Your task to perform on an android device: Open CNN.com Image 0: 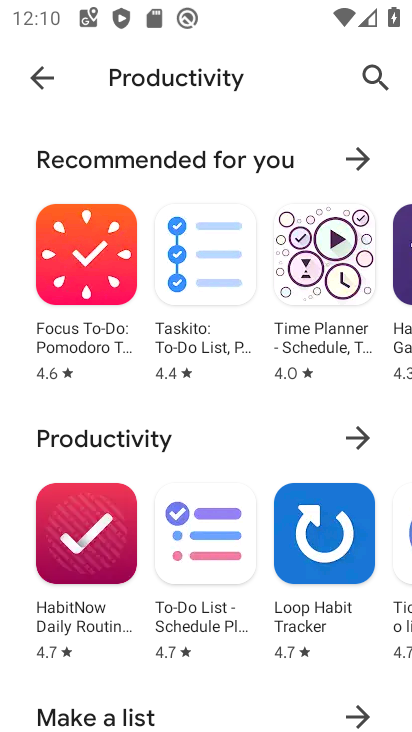
Step 0: press home button
Your task to perform on an android device: Open CNN.com Image 1: 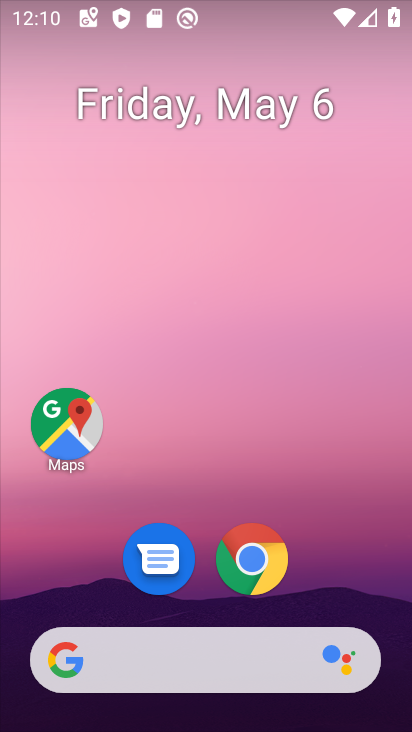
Step 1: click (227, 558)
Your task to perform on an android device: Open CNN.com Image 2: 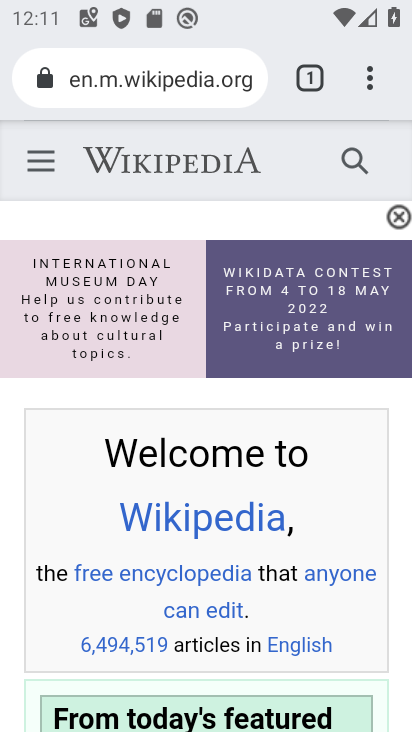
Step 2: click (180, 85)
Your task to perform on an android device: Open CNN.com Image 3: 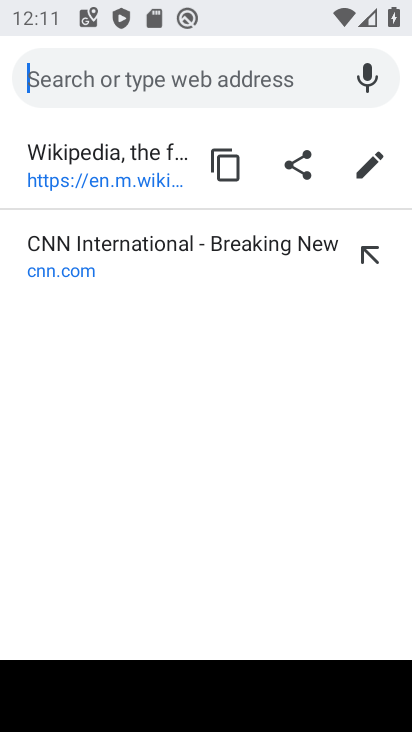
Step 3: type "CNN.com"
Your task to perform on an android device: Open CNN.com Image 4: 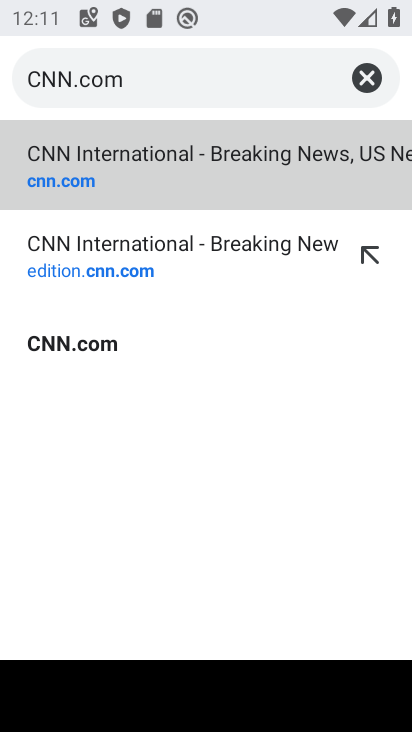
Step 4: click (92, 155)
Your task to perform on an android device: Open CNN.com Image 5: 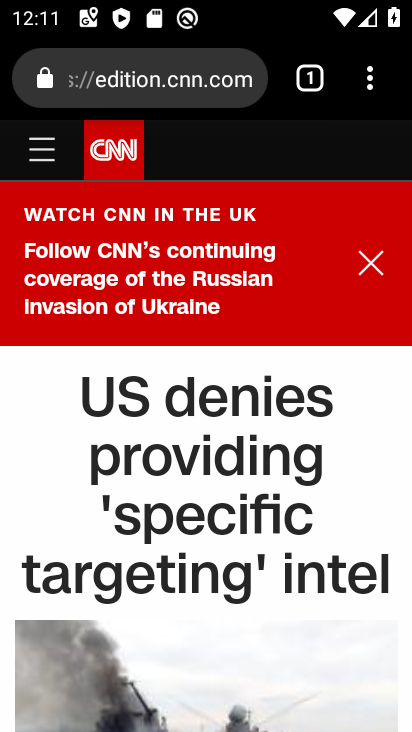
Step 5: task complete